Your task to perform on an android device: Toggle the flashlight Image 0: 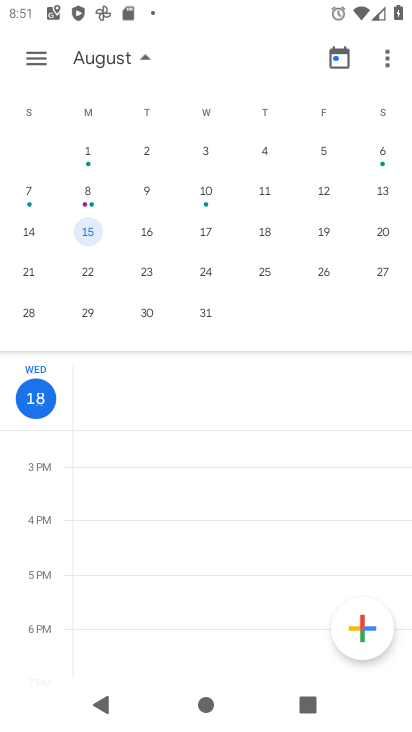
Step 0: press home button
Your task to perform on an android device: Toggle the flashlight Image 1: 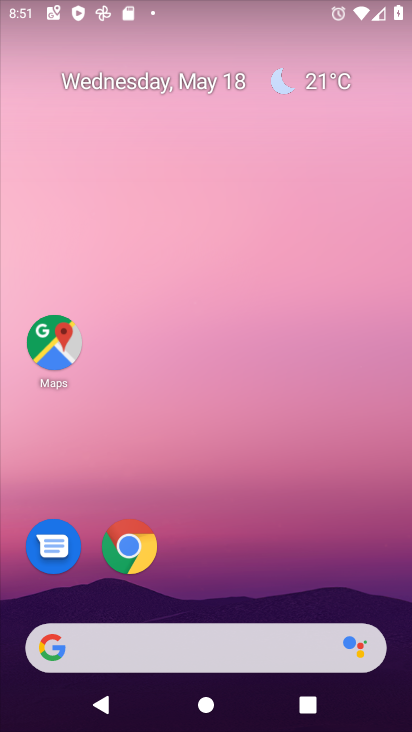
Step 1: drag from (404, 650) to (226, 8)
Your task to perform on an android device: Toggle the flashlight Image 2: 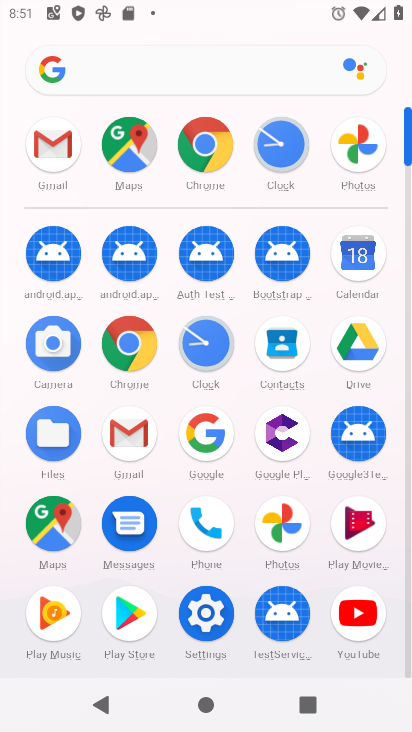
Step 2: click (214, 623)
Your task to perform on an android device: Toggle the flashlight Image 3: 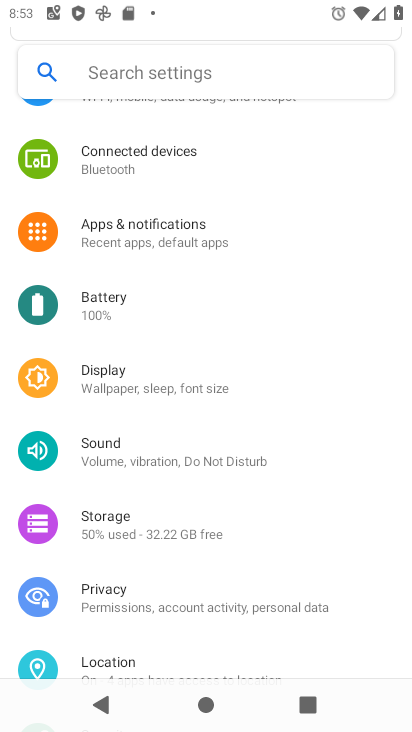
Step 3: task complete